Your task to perform on an android device: What's the weather today? Image 0: 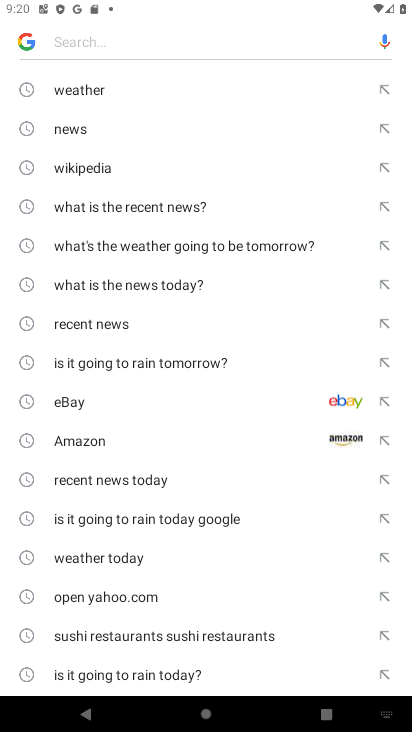
Step 0: press home button
Your task to perform on an android device: What's the weather today? Image 1: 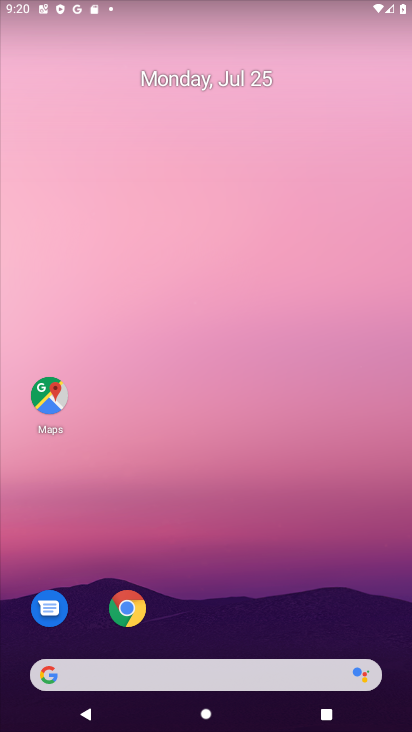
Step 1: click (123, 621)
Your task to perform on an android device: What's the weather today? Image 2: 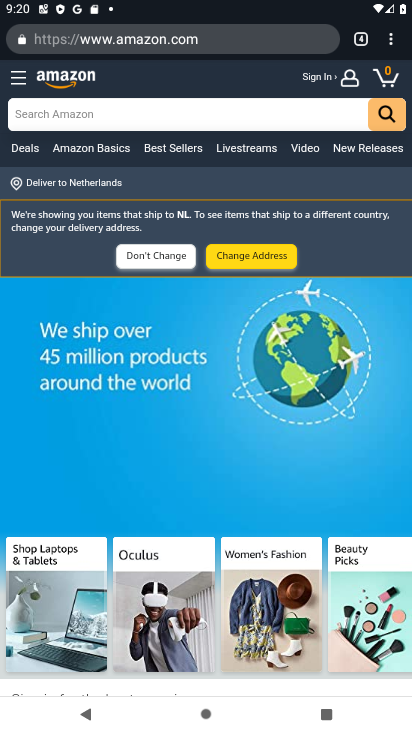
Step 2: click (390, 37)
Your task to perform on an android device: What's the weather today? Image 3: 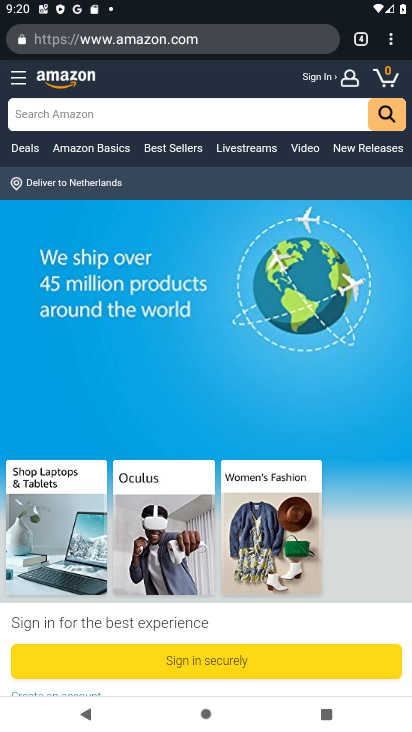
Step 3: click (397, 35)
Your task to perform on an android device: What's the weather today? Image 4: 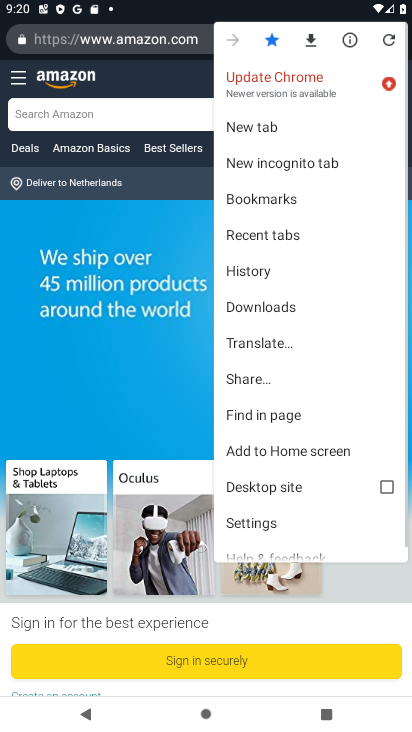
Step 4: click (258, 131)
Your task to perform on an android device: What's the weather today? Image 5: 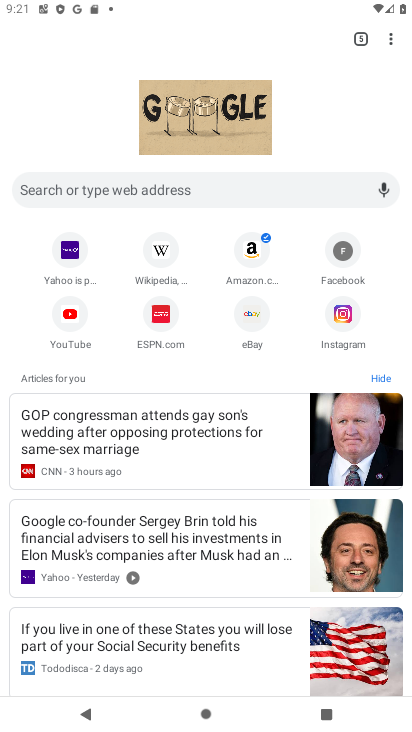
Step 5: click (265, 193)
Your task to perform on an android device: What's the weather today? Image 6: 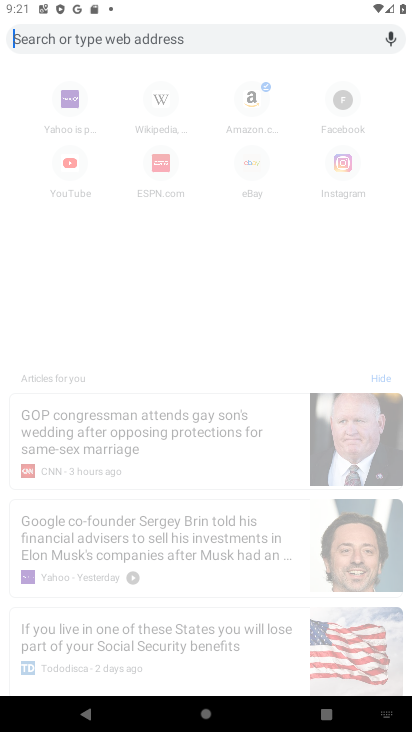
Step 6: type "What's the weather today? "
Your task to perform on an android device: What's the weather today? Image 7: 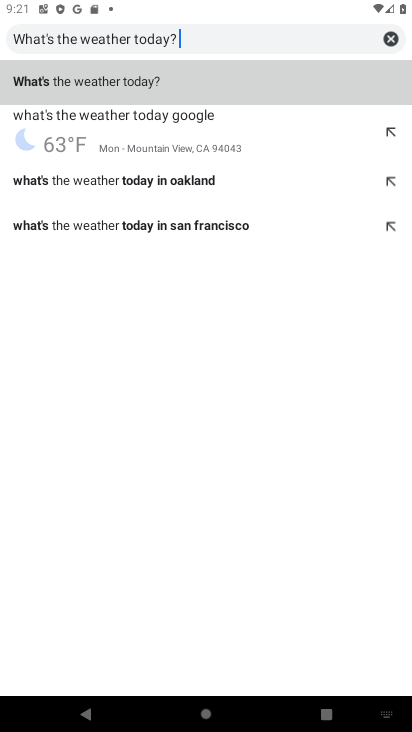
Step 7: click (250, 95)
Your task to perform on an android device: What's the weather today? Image 8: 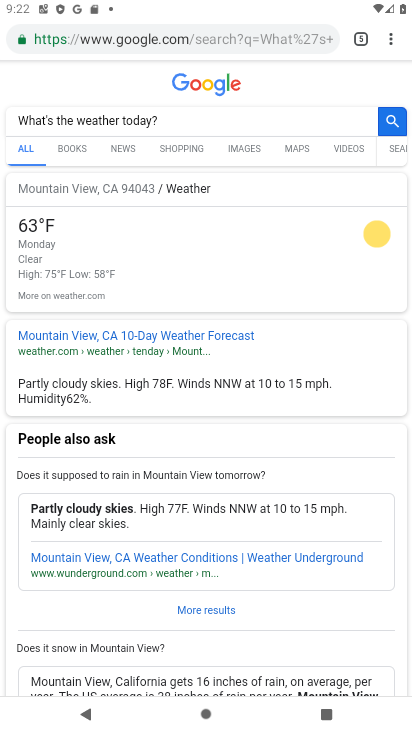
Step 8: task complete